Your task to perform on an android device: check data usage Image 0: 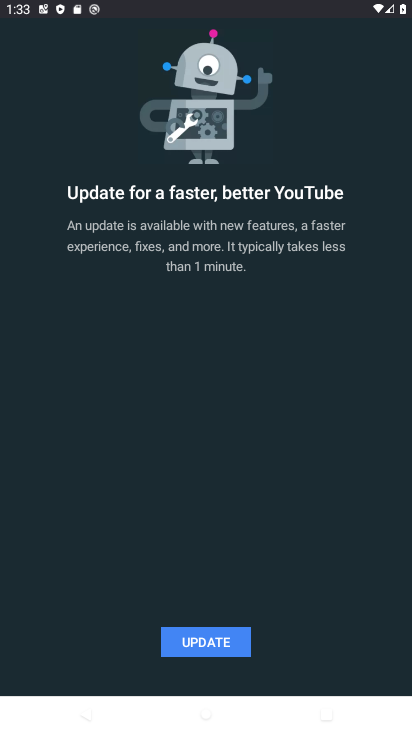
Step 0: press home button
Your task to perform on an android device: check data usage Image 1: 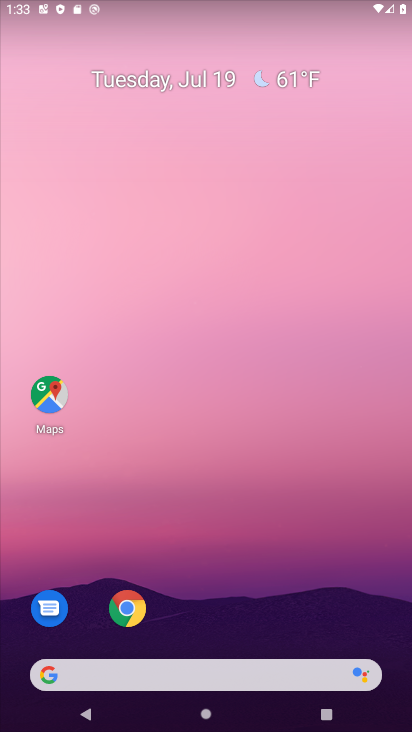
Step 1: drag from (231, 571) to (237, 1)
Your task to perform on an android device: check data usage Image 2: 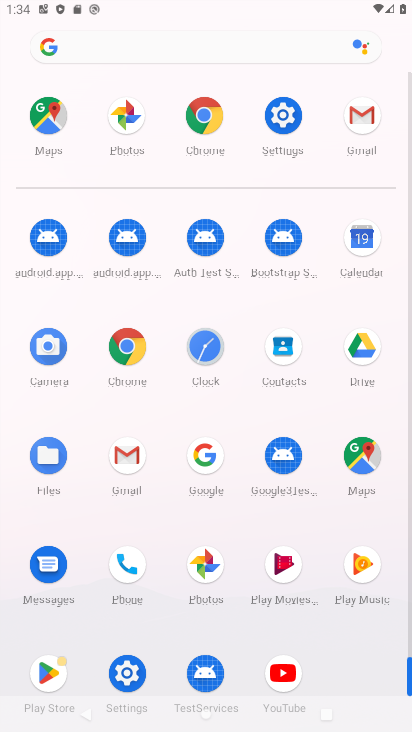
Step 2: click (284, 119)
Your task to perform on an android device: check data usage Image 3: 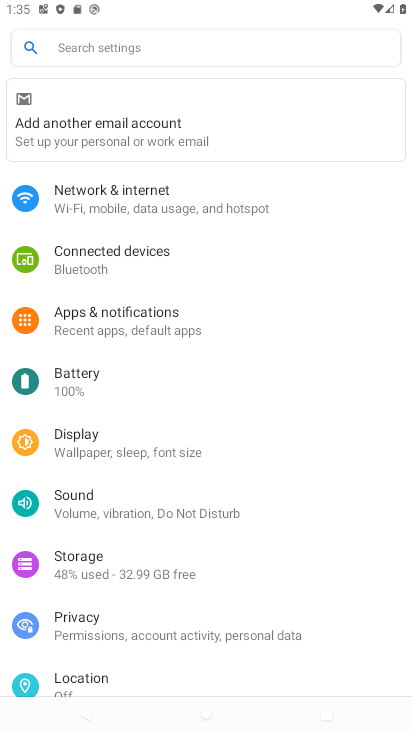
Step 3: click (152, 209)
Your task to perform on an android device: check data usage Image 4: 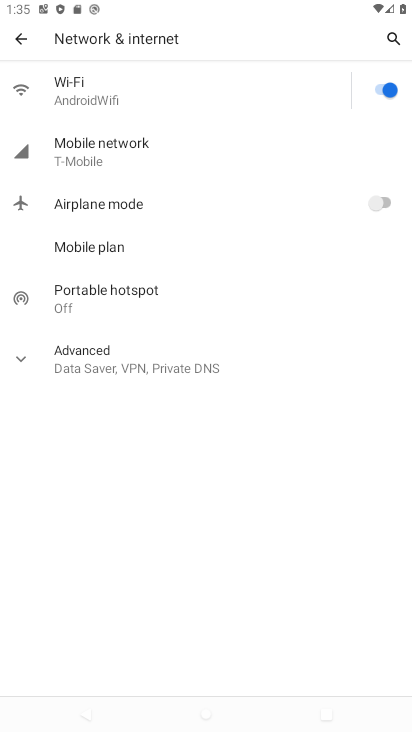
Step 4: click (82, 143)
Your task to perform on an android device: check data usage Image 5: 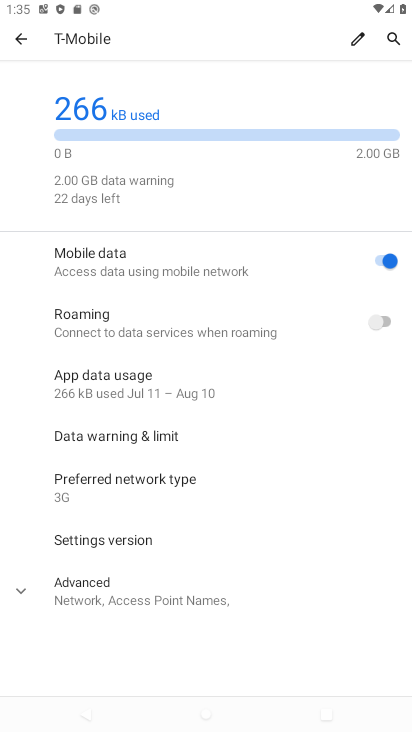
Step 5: task complete